Your task to perform on an android device: all mails in gmail Image 0: 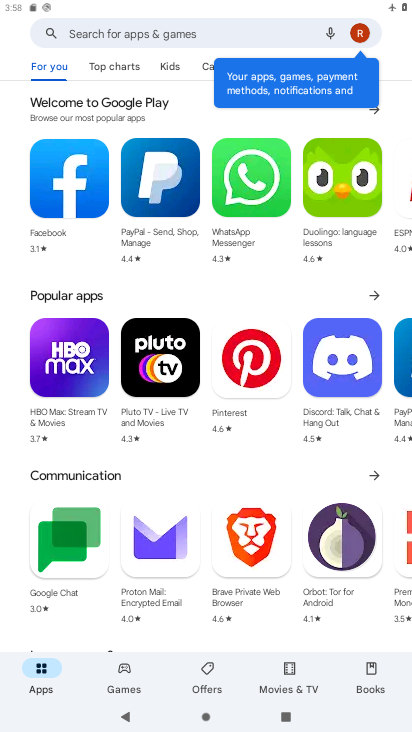
Step 0: press home button
Your task to perform on an android device: all mails in gmail Image 1: 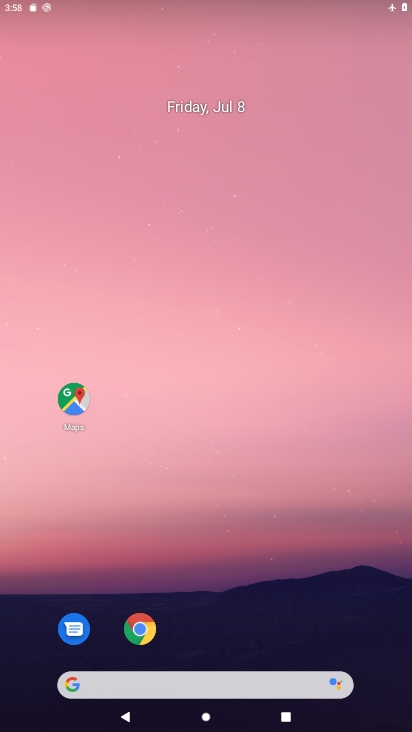
Step 1: drag from (196, 637) to (188, 274)
Your task to perform on an android device: all mails in gmail Image 2: 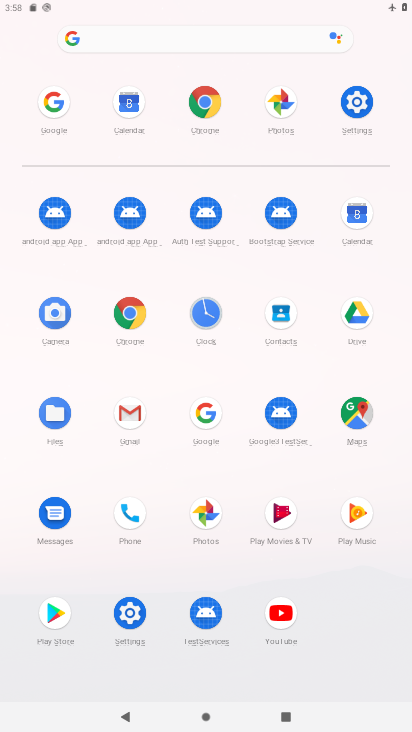
Step 2: click (121, 405)
Your task to perform on an android device: all mails in gmail Image 3: 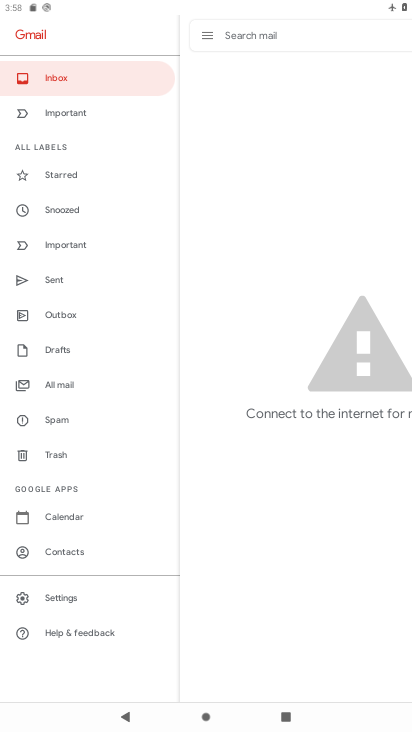
Step 3: click (58, 377)
Your task to perform on an android device: all mails in gmail Image 4: 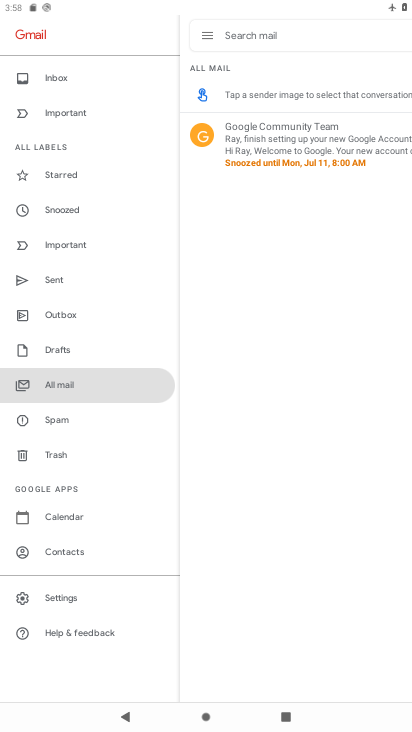
Step 4: click (206, 256)
Your task to perform on an android device: all mails in gmail Image 5: 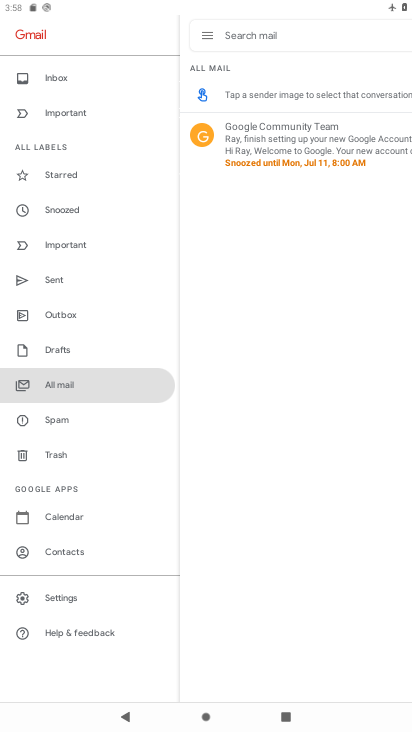
Step 5: click (234, 85)
Your task to perform on an android device: all mails in gmail Image 6: 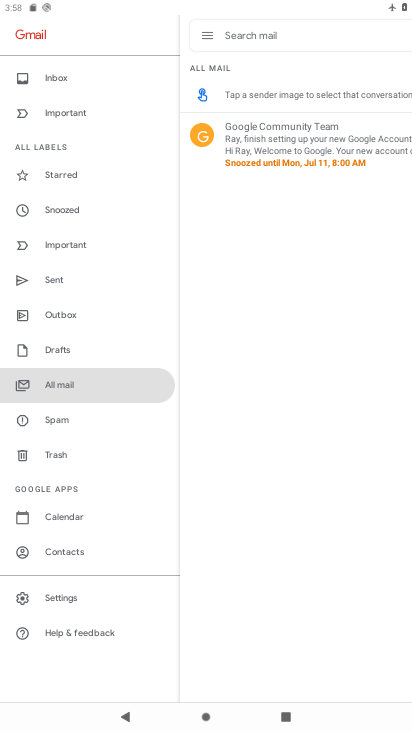
Step 6: task complete